Your task to perform on an android device: Open maps Image 0: 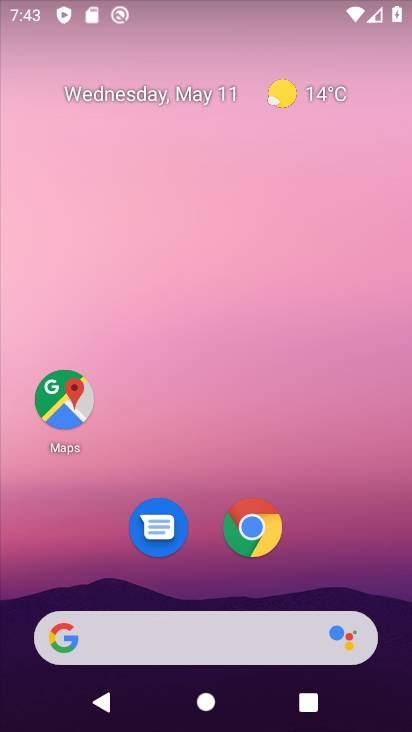
Step 0: drag from (264, 635) to (226, 200)
Your task to perform on an android device: Open maps Image 1: 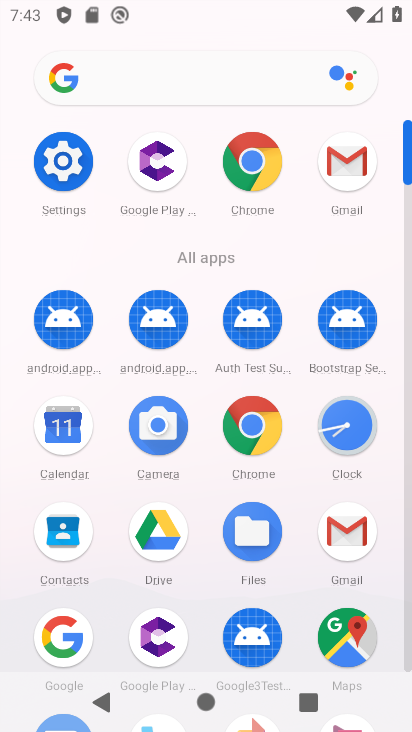
Step 1: click (349, 626)
Your task to perform on an android device: Open maps Image 2: 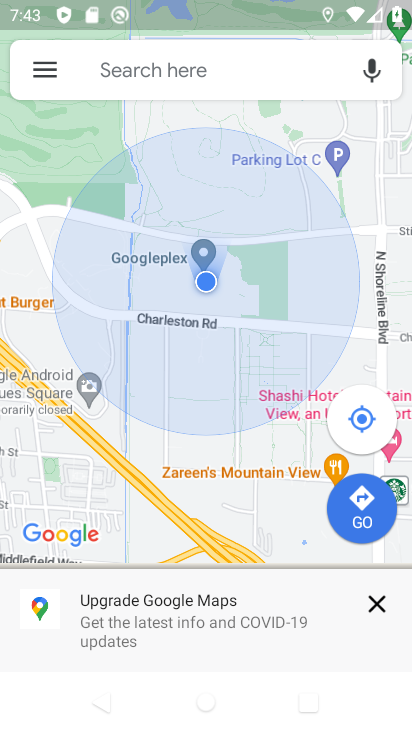
Step 2: press home button
Your task to perform on an android device: Open maps Image 3: 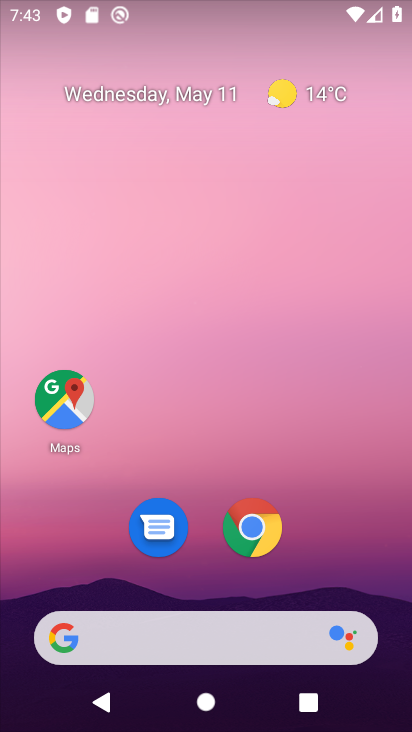
Step 3: click (72, 407)
Your task to perform on an android device: Open maps Image 4: 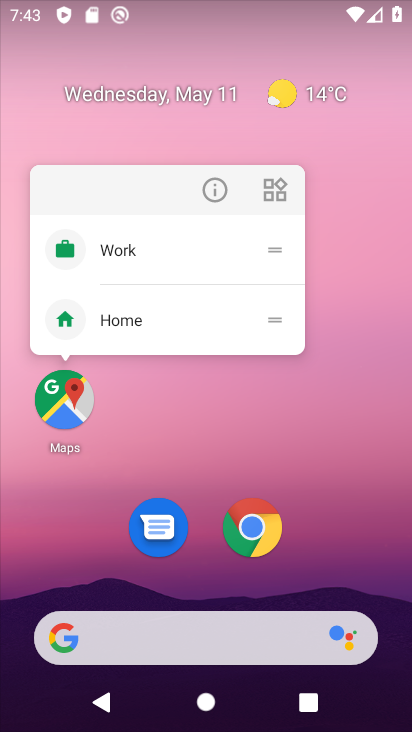
Step 4: click (71, 406)
Your task to perform on an android device: Open maps Image 5: 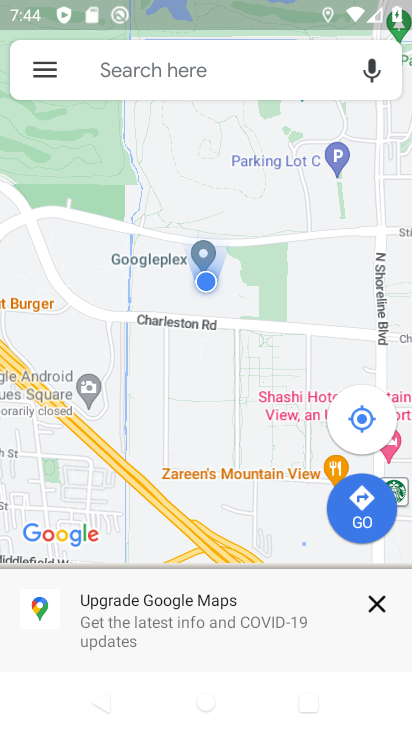
Step 5: task complete